Your task to perform on an android device: manage bookmarks in the chrome app Image 0: 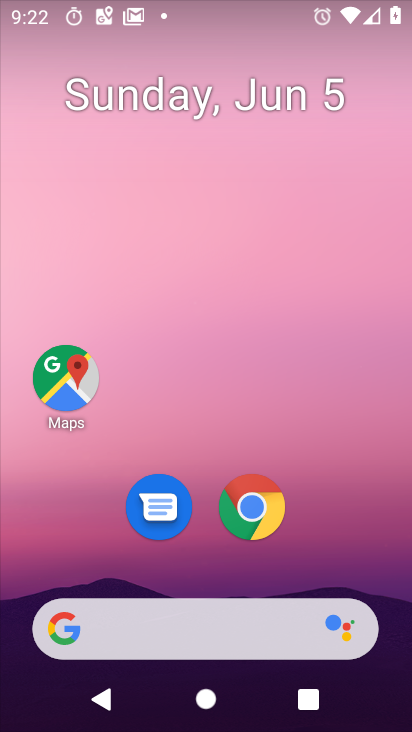
Step 0: drag from (212, 652) to (147, 148)
Your task to perform on an android device: manage bookmarks in the chrome app Image 1: 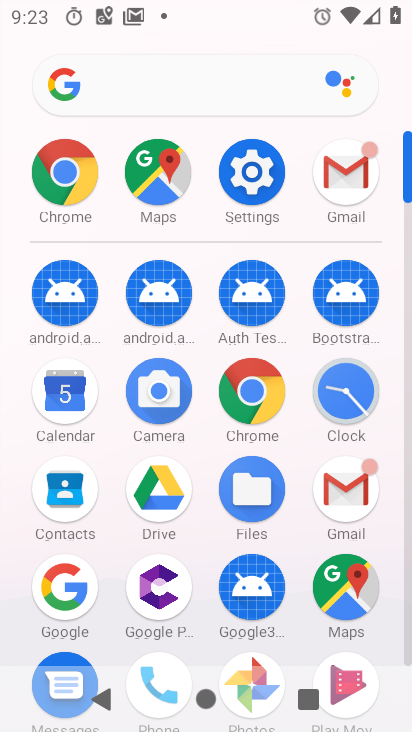
Step 1: click (78, 157)
Your task to perform on an android device: manage bookmarks in the chrome app Image 2: 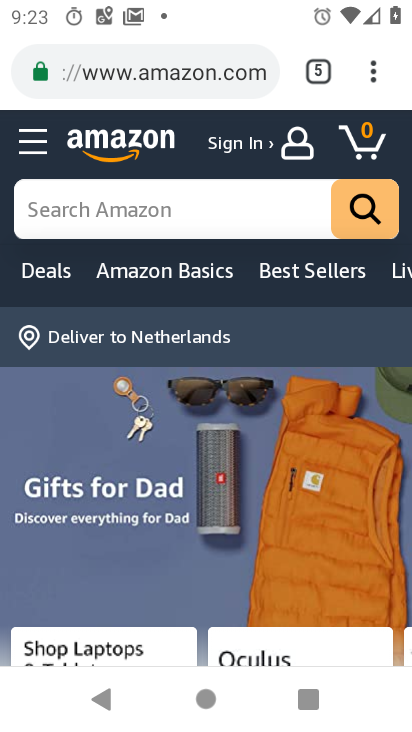
Step 2: click (372, 84)
Your task to perform on an android device: manage bookmarks in the chrome app Image 3: 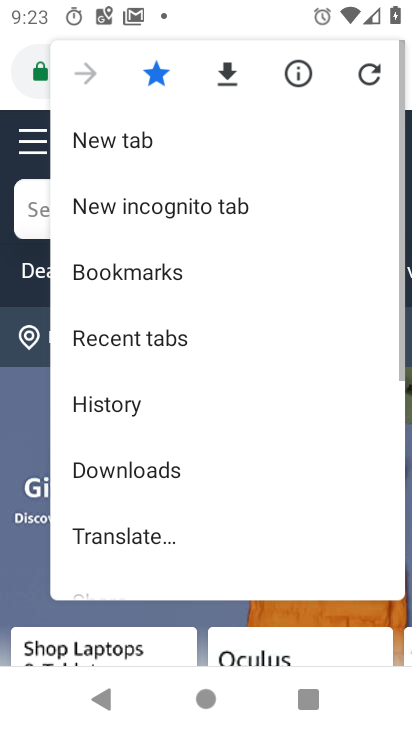
Step 3: drag from (177, 494) to (240, 344)
Your task to perform on an android device: manage bookmarks in the chrome app Image 4: 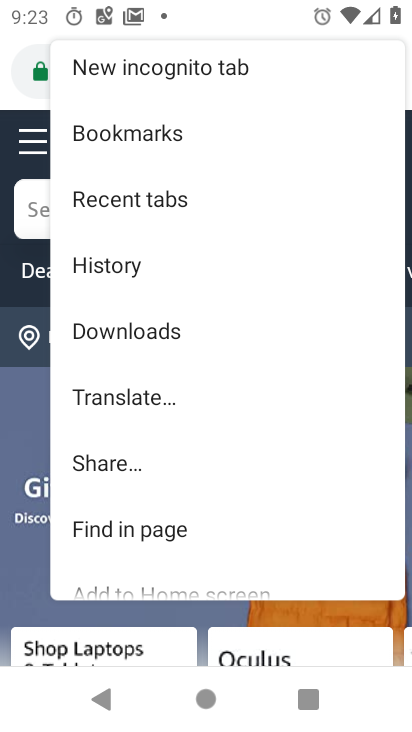
Step 4: click (148, 140)
Your task to perform on an android device: manage bookmarks in the chrome app Image 5: 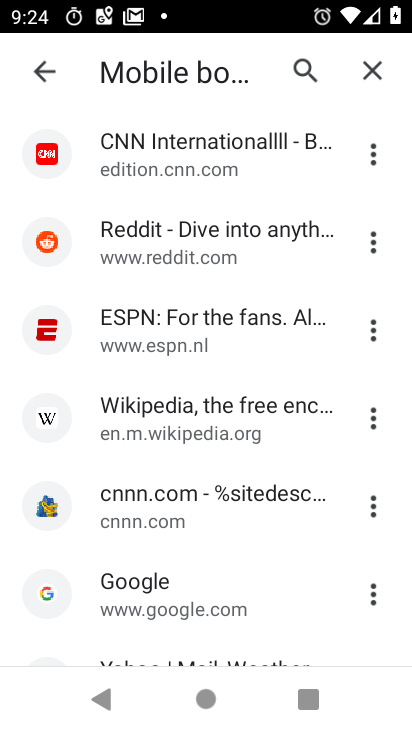
Step 5: task complete